Your task to perform on an android device: What's the weather? Image 0: 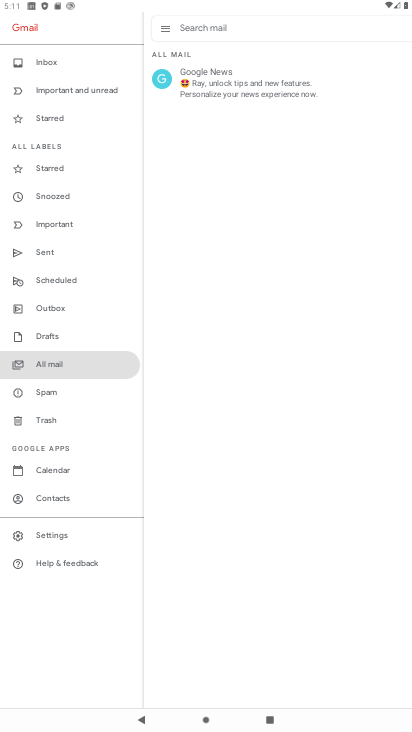
Step 0: press home button
Your task to perform on an android device: What's the weather? Image 1: 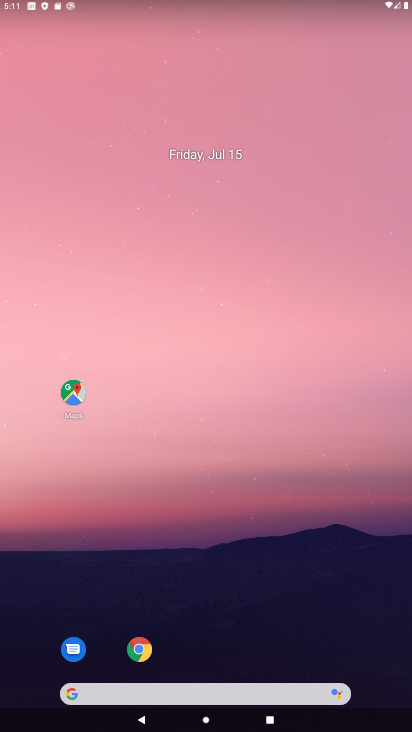
Step 1: drag from (204, 690) to (302, 0)
Your task to perform on an android device: What's the weather? Image 2: 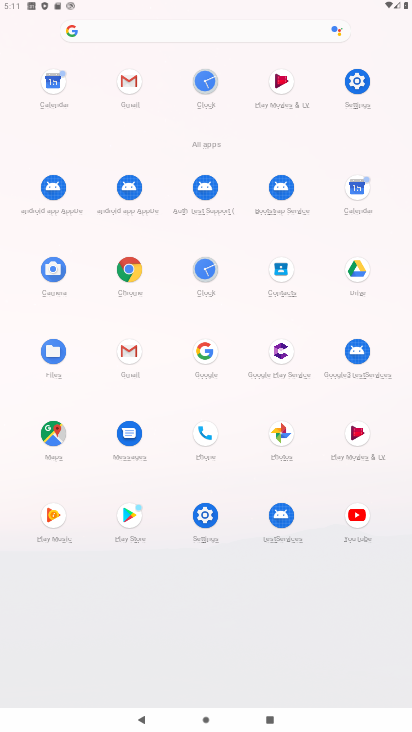
Step 2: click (205, 351)
Your task to perform on an android device: What's the weather? Image 3: 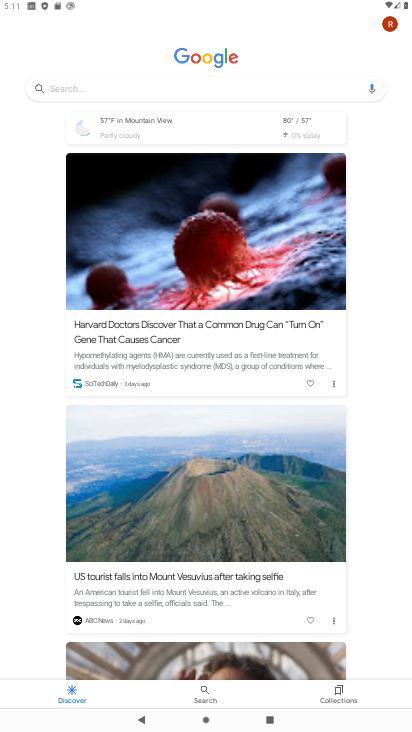
Step 3: click (158, 132)
Your task to perform on an android device: What's the weather? Image 4: 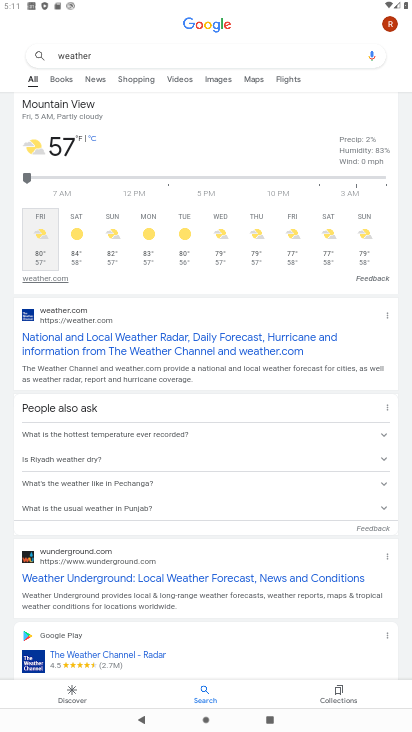
Step 4: task complete